Your task to perform on an android device: toggle pop-ups in chrome Image 0: 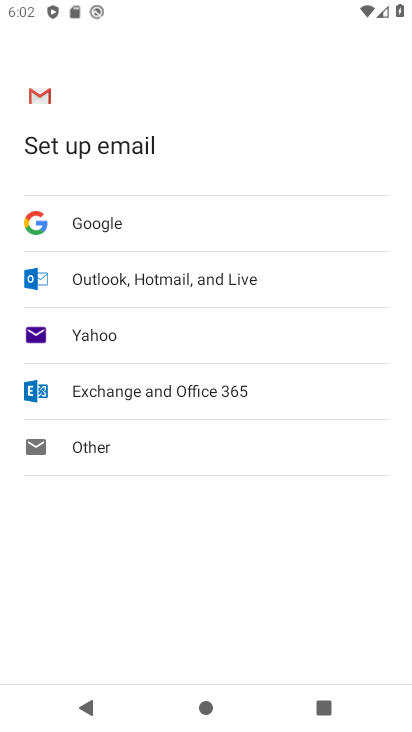
Step 0: press home button
Your task to perform on an android device: toggle pop-ups in chrome Image 1: 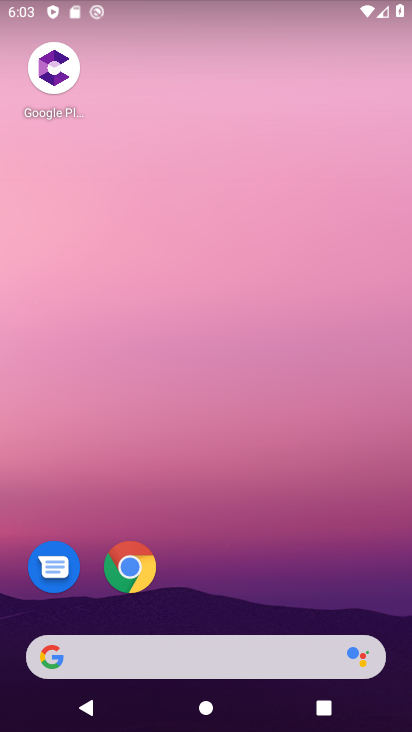
Step 1: click (114, 561)
Your task to perform on an android device: toggle pop-ups in chrome Image 2: 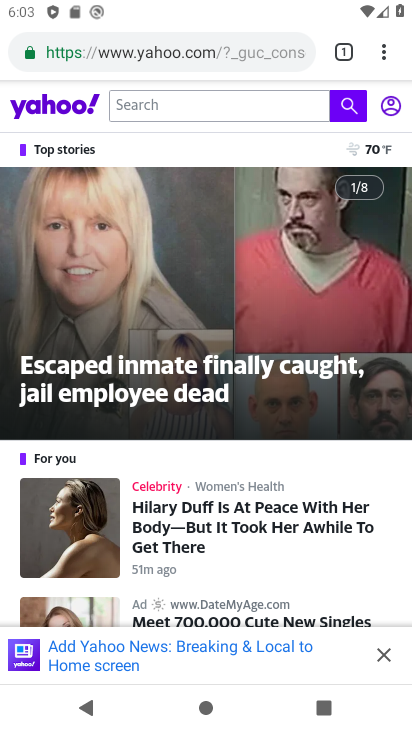
Step 2: drag from (386, 45) to (228, 611)
Your task to perform on an android device: toggle pop-ups in chrome Image 3: 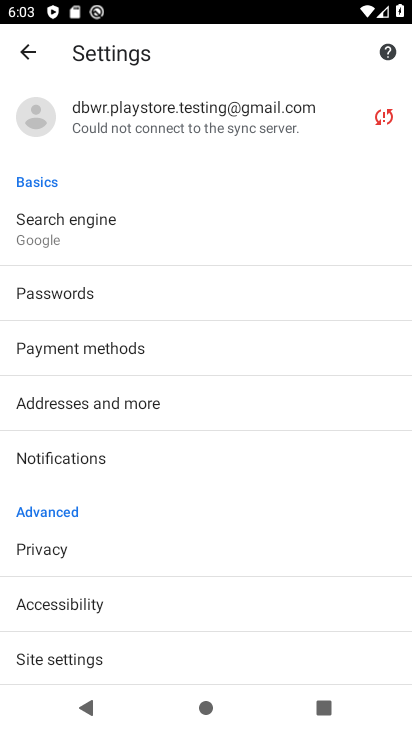
Step 3: drag from (202, 597) to (187, 355)
Your task to perform on an android device: toggle pop-ups in chrome Image 4: 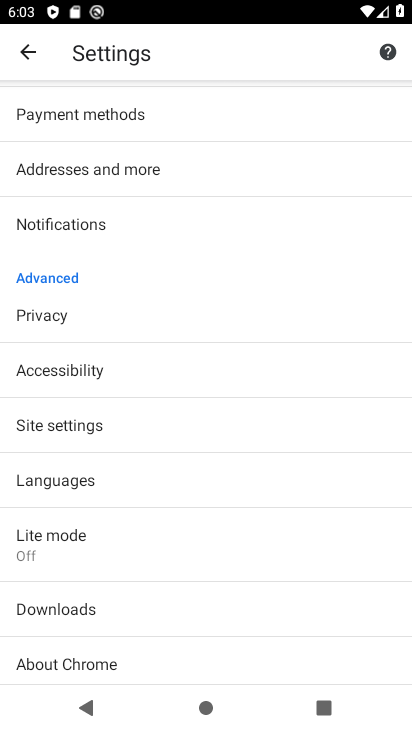
Step 4: click (61, 413)
Your task to perform on an android device: toggle pop-ups in chrome Image 5: 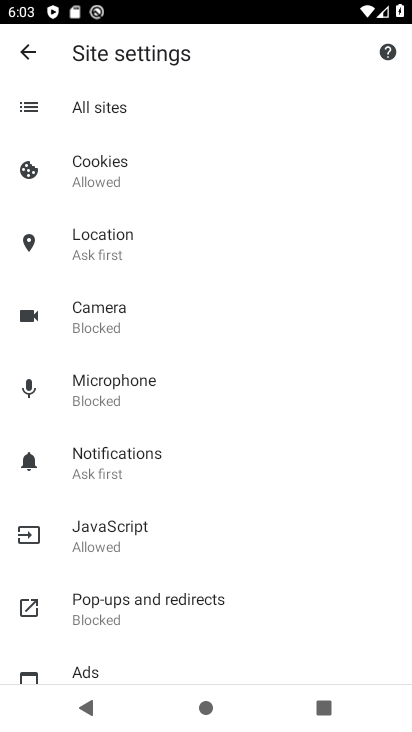
Step 5: click (199, 600)
Your task to perform on an android device: toggle pop-ups in chrome Image 6: 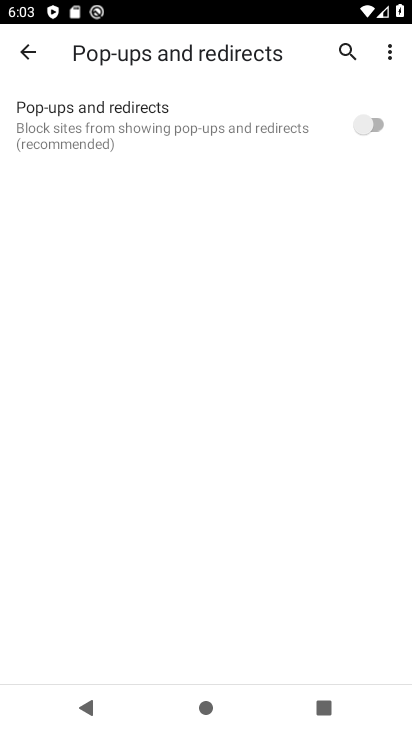
Step 6: click (347, 123)
Your task to perform on an android device: toggle pop-ups in chrome Image 7: 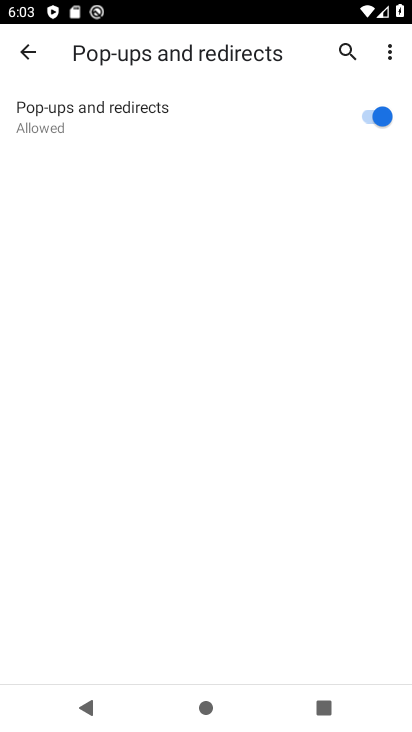
Step 7: task complete